Your task to perform on an android device: Open Youtube and go to "Your channel" Image 0: 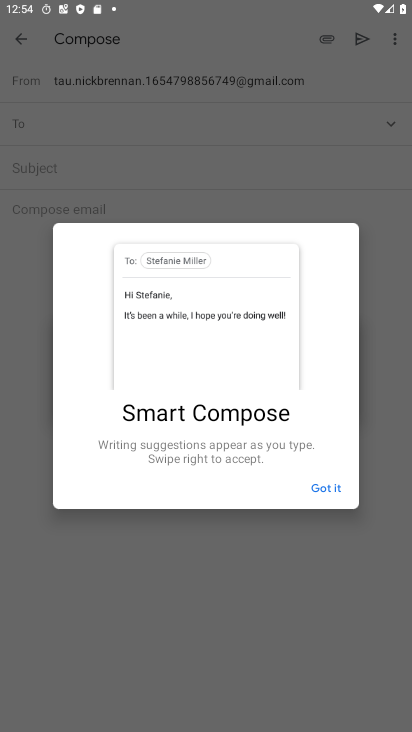
Step 0: press home button
Your task to perform on an android device: Open Youtube and go to "Your channel" Image 1: 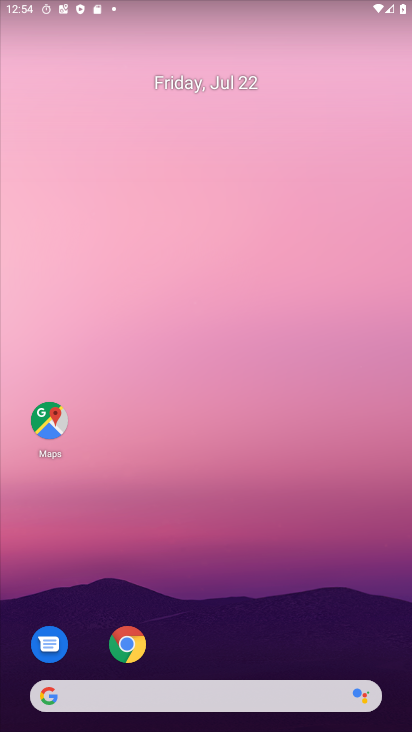
Step 1: drag from (236, 617) to (227, 10)
Your task to perform on an android device: Open Youtube and go to "Your channel" Image 2: 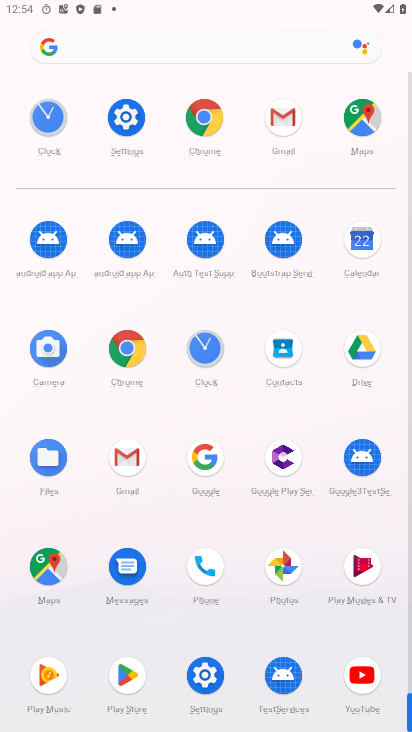
Step 2: click (366, 666)
Your task to perform on an android device: Open Youtube and go to "Your channel" Image 3: 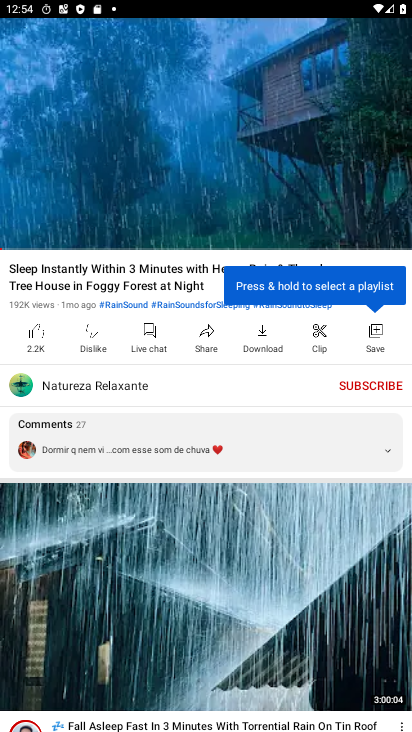
Step 3: drag from (290, 237) to (242, 675)
Your task to perform on an android device: Open Youtube and go to "Your channel" Image 4: 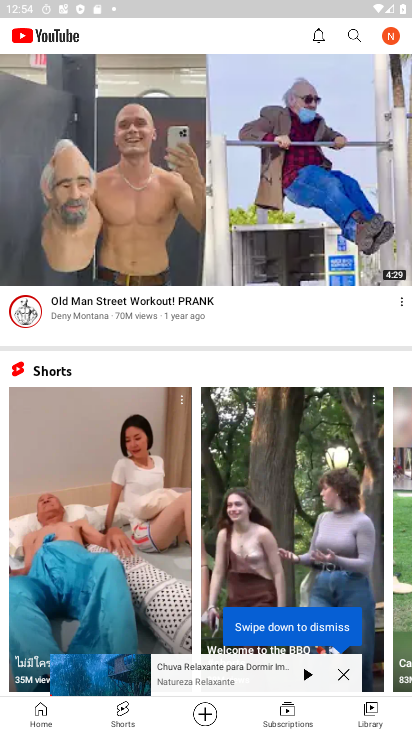
Step 4: click (400, 41)
Your task to perform on an android device: Open Youtube and go to "Your channel" Image 5: 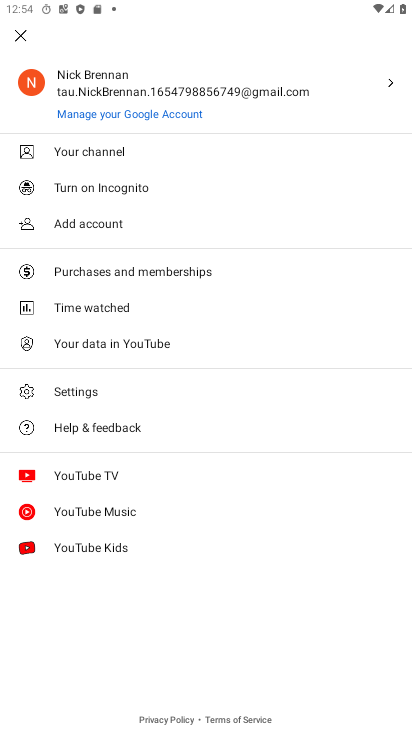
Step 5: click (84, 165)
Your task to perform on an android device: Open Youtube and go to "Your channel" Image 6: 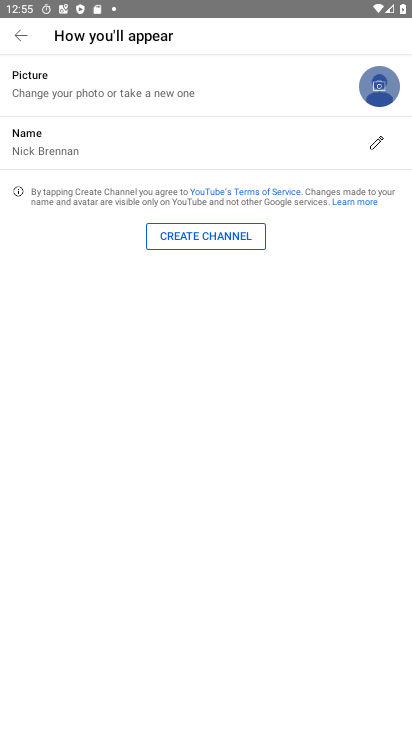
Step 6: task complete